Your task to perform on an android device: set the stopwatch Image 0: 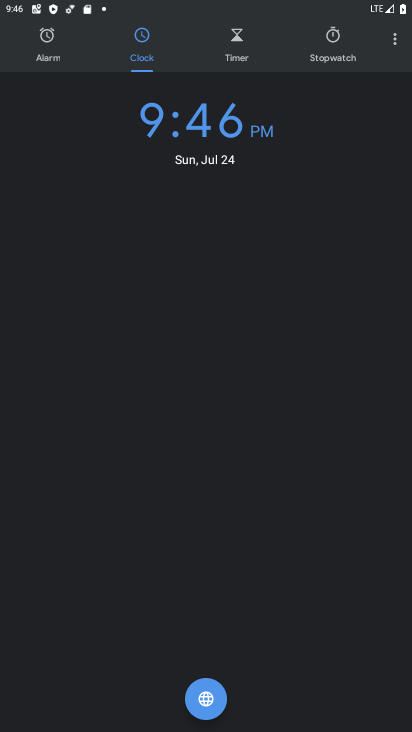
Step 0: press home button
Your task to perform on an android device: set the stopwatch Image 1: 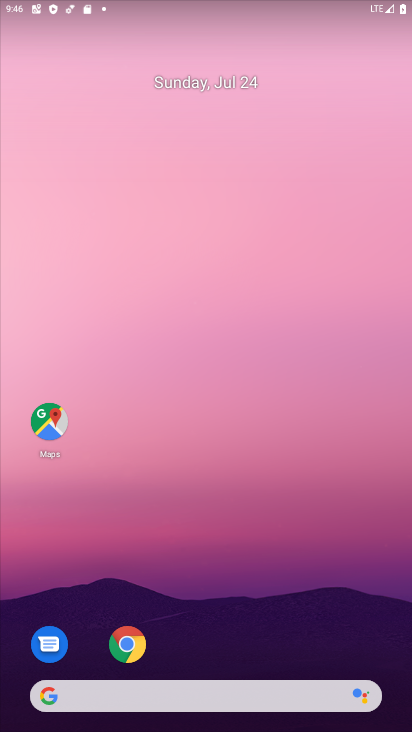
Step 1: drag from (190, 691) to (237, 324)
Your task to perform on an android device: set the stopwatch Image 2: 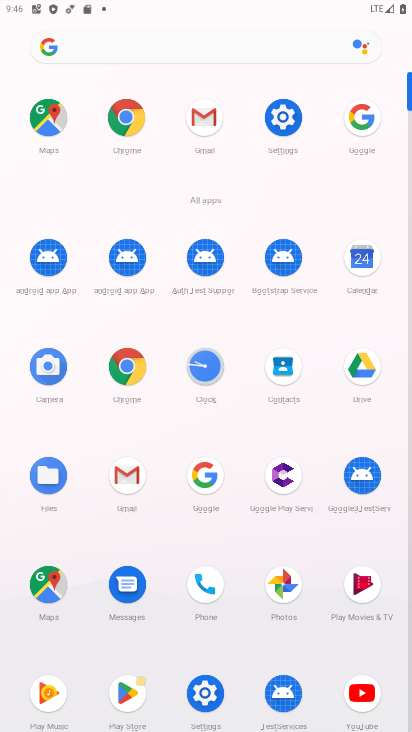
Step 2: click (194, 372)
Your task to perform on an android device: set the stopwatch Image 3: 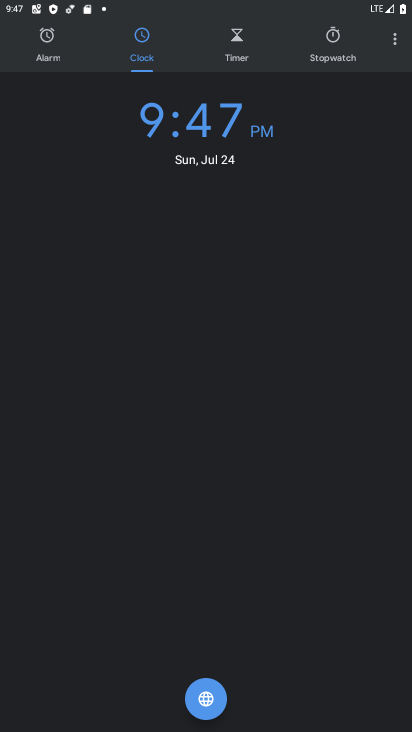
Step 3: press home button
Your task to perform on an android device: set the stopwatch Image 4: 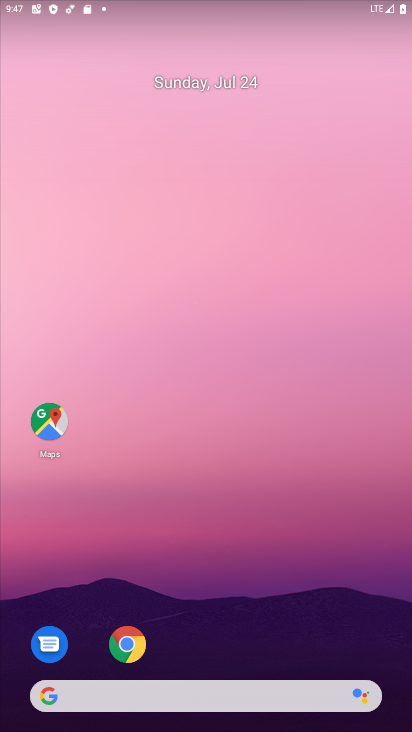
Step 4: drag from (224, 694) to (214, 231)
Your task to perform on an android device: set the stopwatch Image 5: 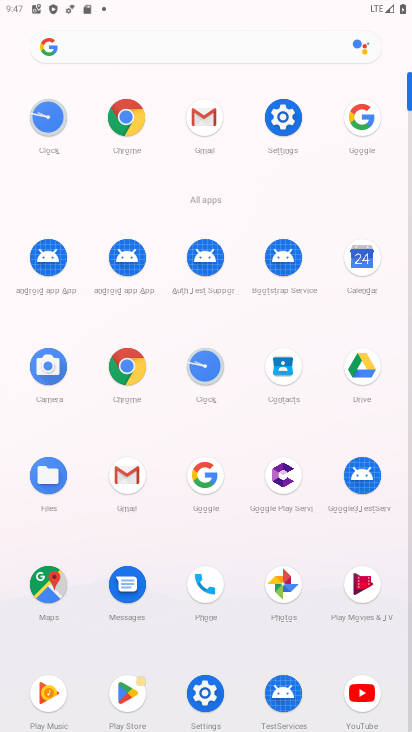
Step 5: click (209, 367)
Your task to perform on an android device: set the stopwatch Image 6: 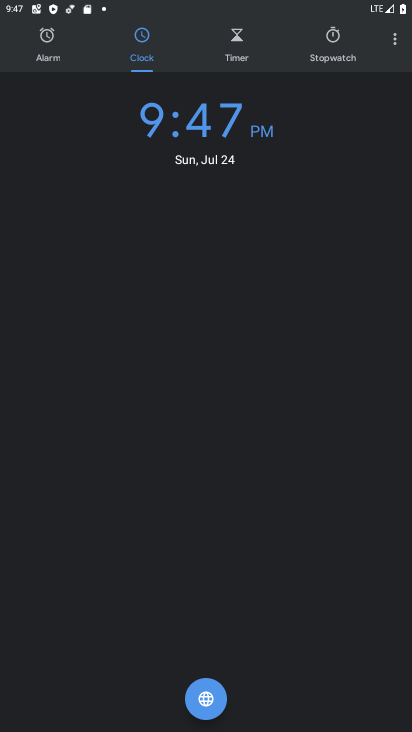
Step 6: click (321, 26)
Your task to perform on an android device: set the stopwatch Image 7: 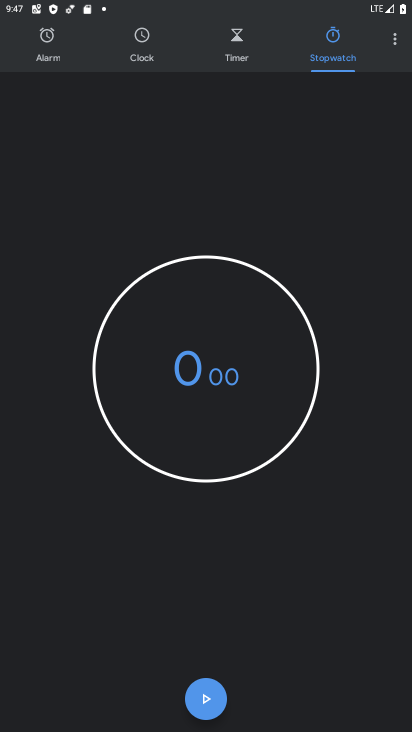
Step 7: click (197, 704)
Your task to perform on an android device: set the stopwatch Image 8: 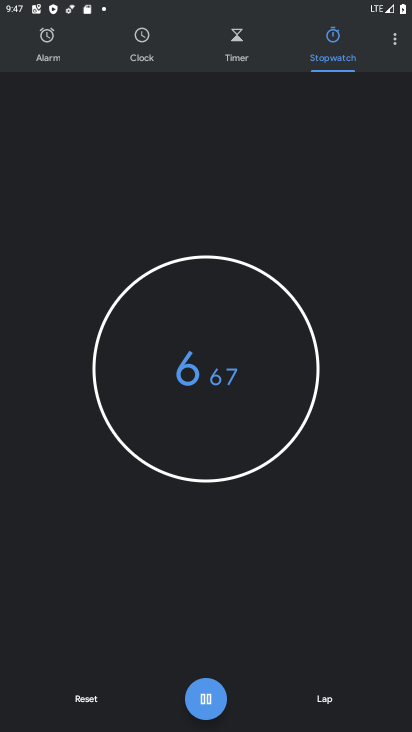
Step 8: click (191, 706)
Your task to perform on an android device: set the stopwatch Image 9: 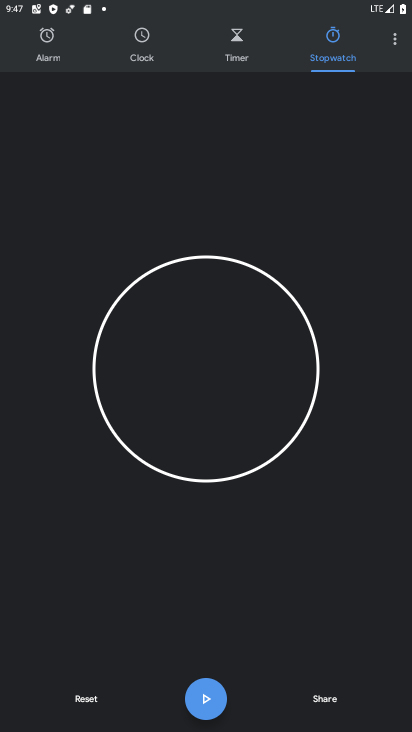
Step 9: task complete